Your task to perform on an android device: Is it going to rain this weekend? Image 0: 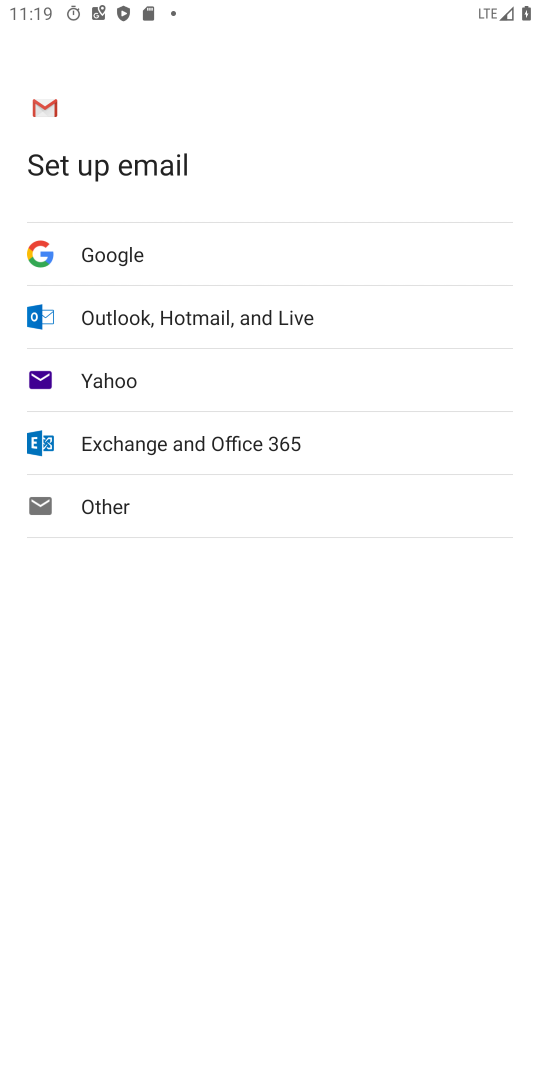
Step 0: drag from (222, 8) to (438, 598)
Your task to perform on an android device: Is it going to rain this weekend? Image 1: 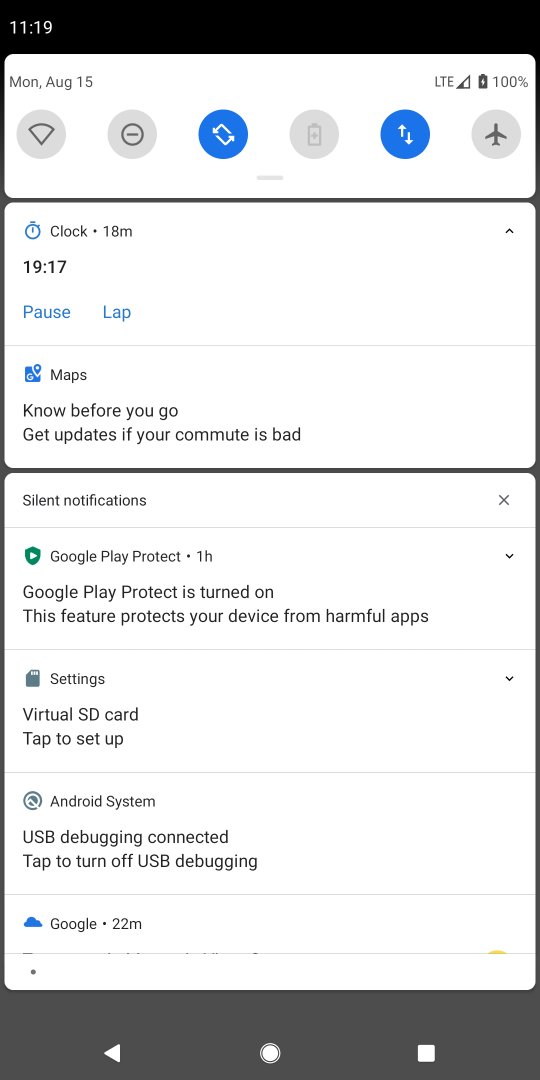
Step 1: click (144, 142)
Your task to perform on an android device: Is it going to rain this weekend? Image 2: 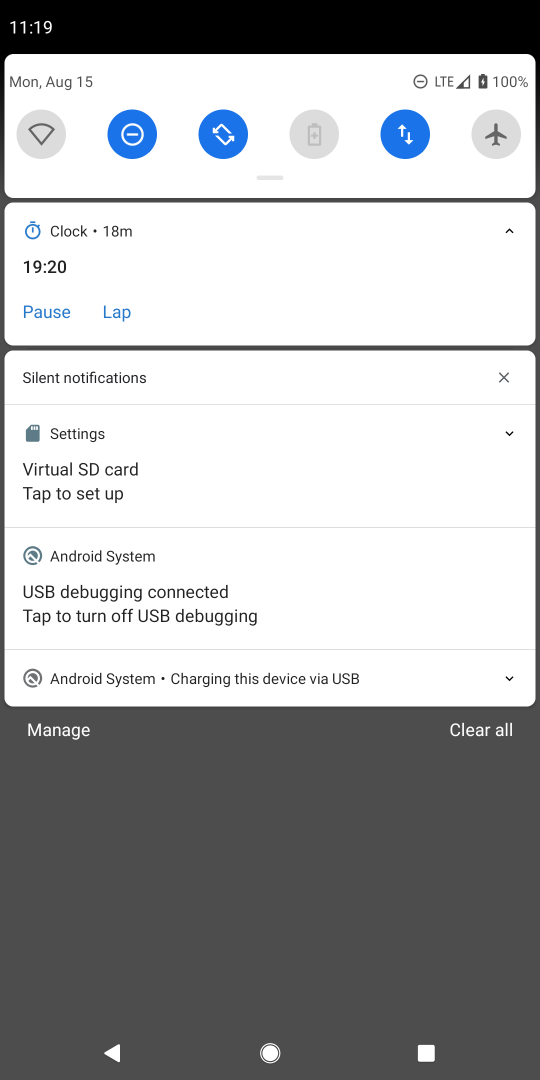
Step 2: task complete